Your task to perform on an android device: create a new album in the google photos Image 0: 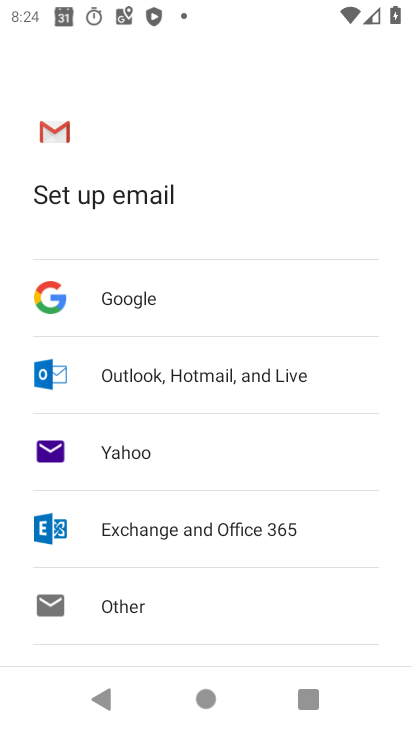
Step 0: press home button
Your task to perform on an android device: create a new album in the google photos Image 1: 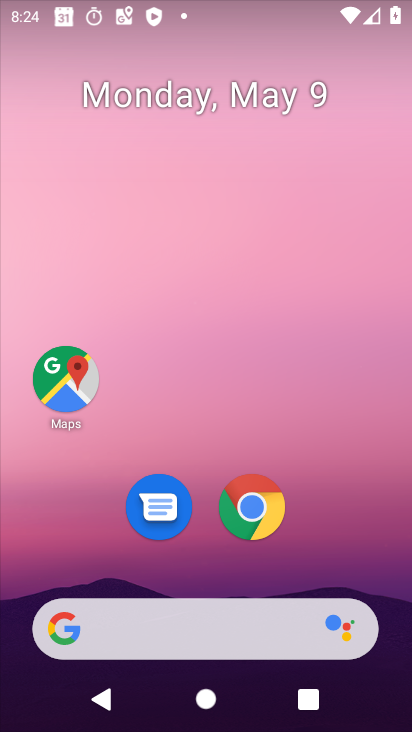
Step 1: drag from (247, 669) to (221, 149)
Your task to perform on an android device: create a new album in the google photos Image 2: 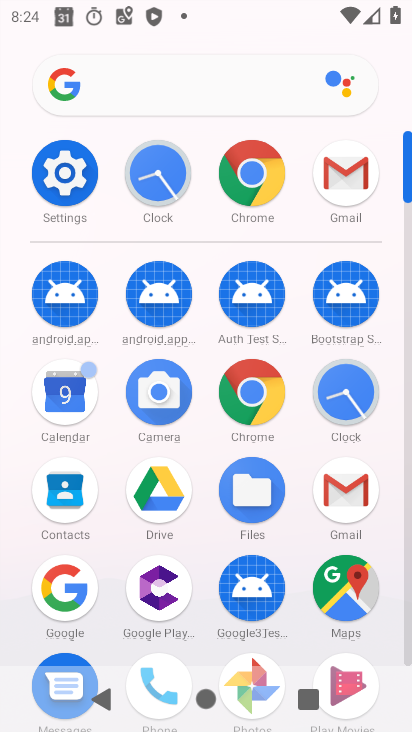
Step 2: click (257, 661)
Your task to perform on an android device: create a new album in the google photos Image 3: 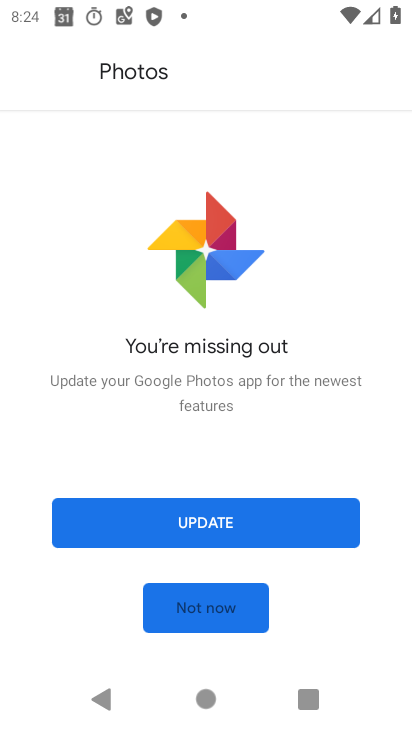
Step 3: click (265, 534)
Your task to perform on an android device: create a new album in the google photos Image 4: 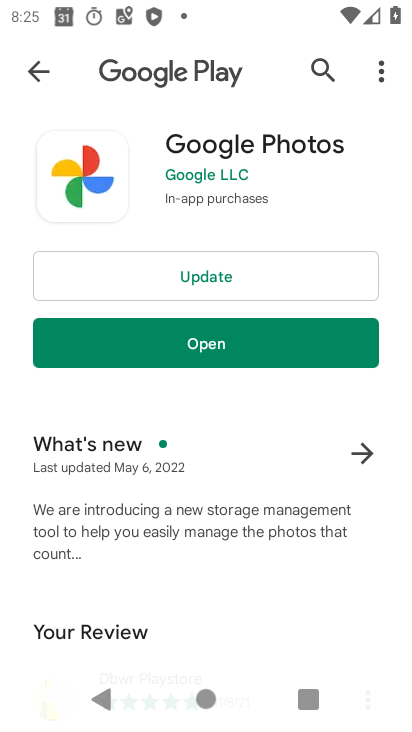
Step 4: click (212, 348)
Your task to perform on an android device: create a new album in the google photos Image 5: 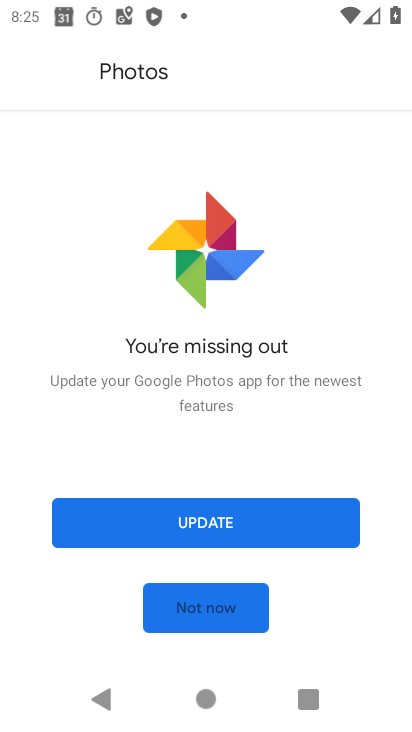
Step 5: click (212, 537)
Your task to perform on an android device: create a new album in the google photos Image 6: 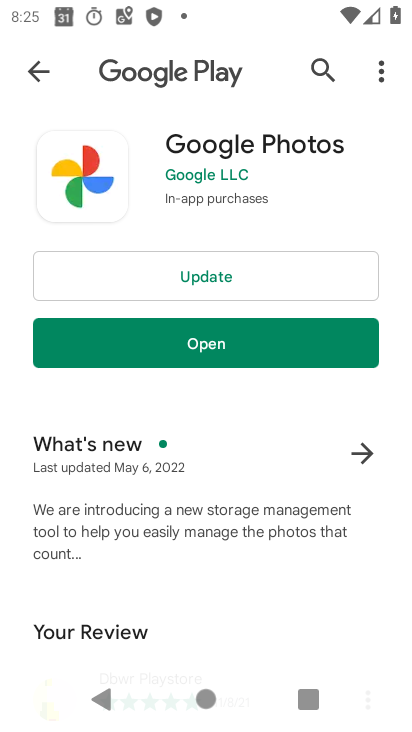
Step 6: click (228, 270)
Your task to perform on an android device: create a new album in the google photos Image 7: 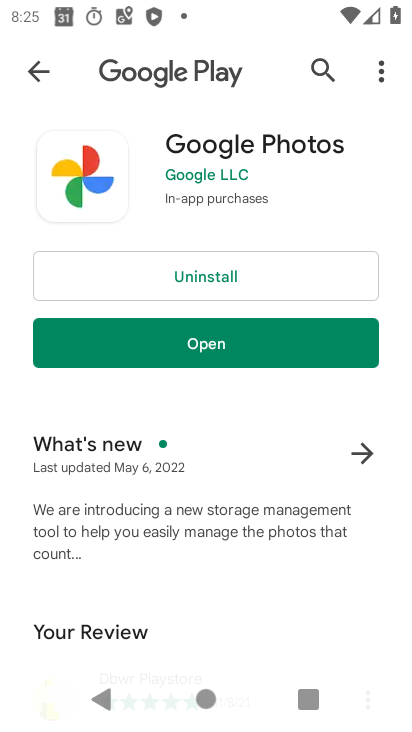
Step 7: click (200, 355)
Your task to perform on an android device: create a new album in the google photos Image 8: 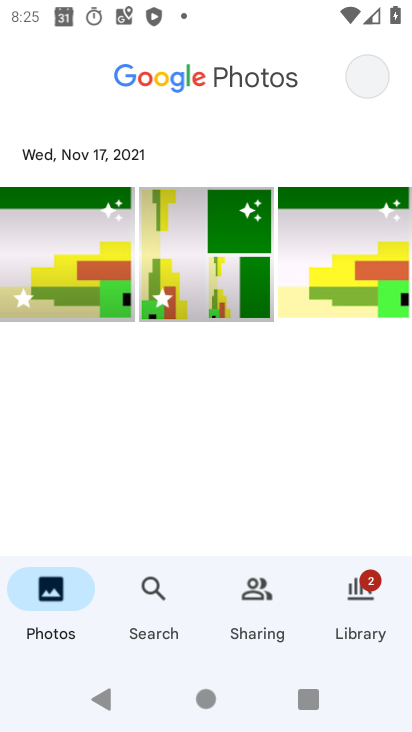
Step 8: click (234, 300)
Your task to perform on an android device: create a new album in the google photos Image 9: 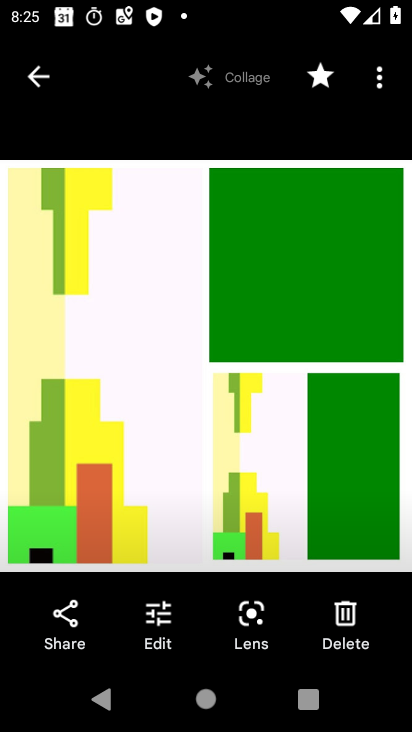
Step 9: click (368, 76)
Your task to perform on an android device: create a new album in the google photos Image 10: 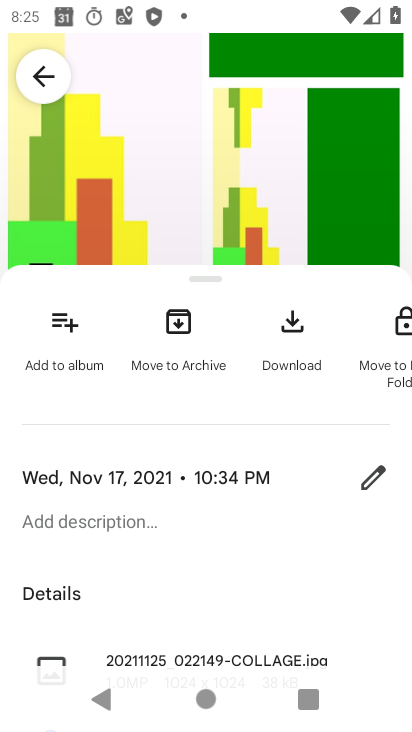
Step 10: drag from (281, 323) to (123, 424)
Your task to perform on an android device: create a new album in the google photos Image 11: 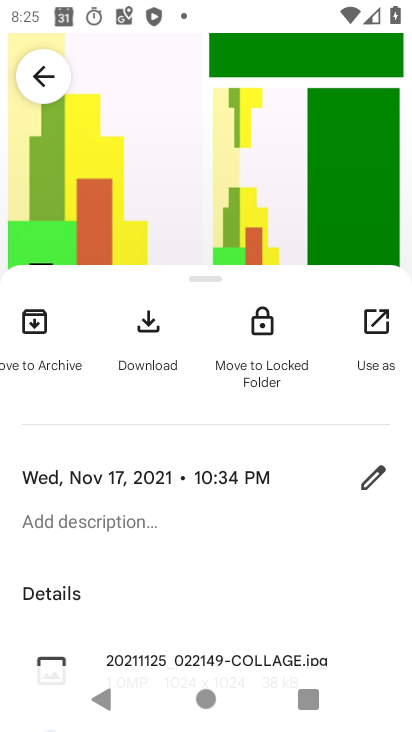
Step 11: click (385, 477)
Your task to perform on an android device: create a new album in the google photos Image 12: 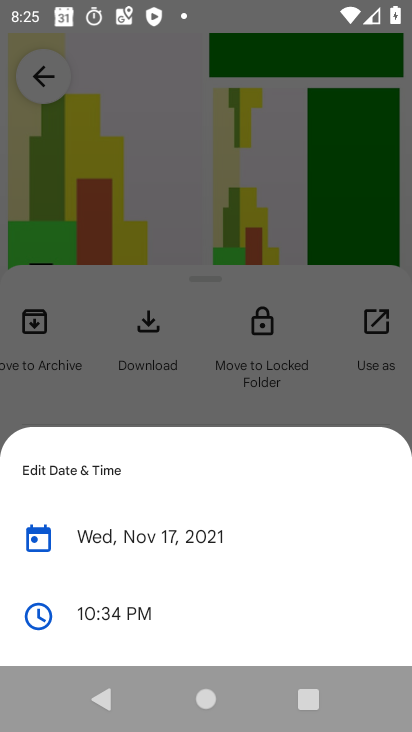
Step 12: click (186, 401)
Your task to perform on an android device: create a new album in the google photos Image 13: 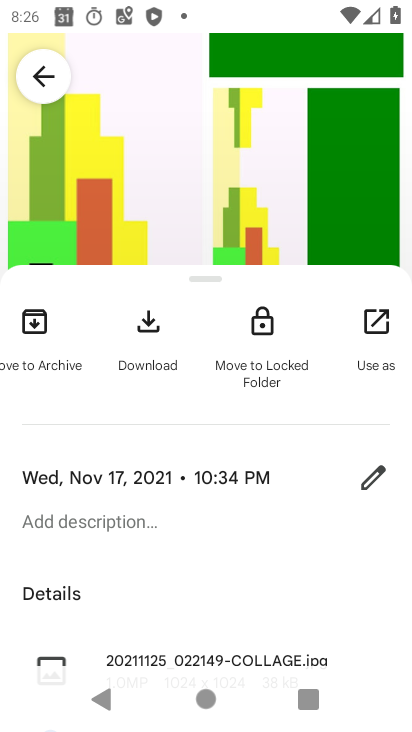
Step 13: drag from (67, 349) to (362, 300)
Your task to perform on an android device: create a new album in the google photos Image 14: 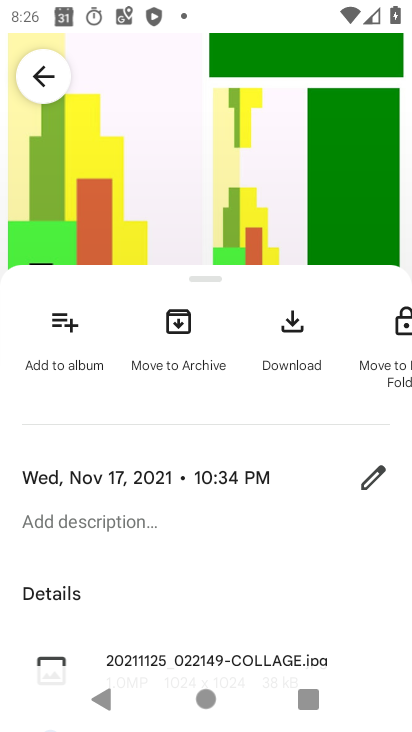
Step 14: click (79, 329)
Your task to perform on an android device: create a new album in the google photos Image 15: 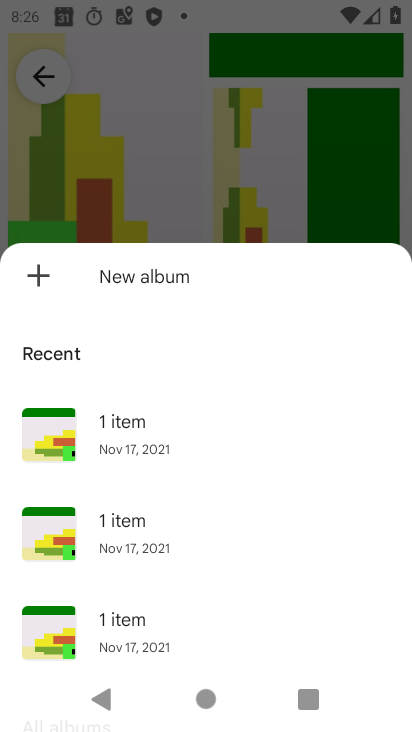
Step 15: click (141, 290)
Your task to perform on an android device: create a new album in the google photos Image 16: 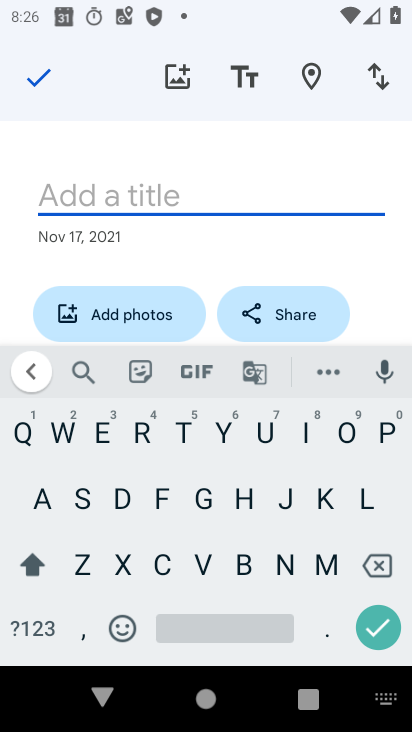
Step 16: click (207, 499)
Your task to perform on an android device: create a new album in the google photos Image 17: 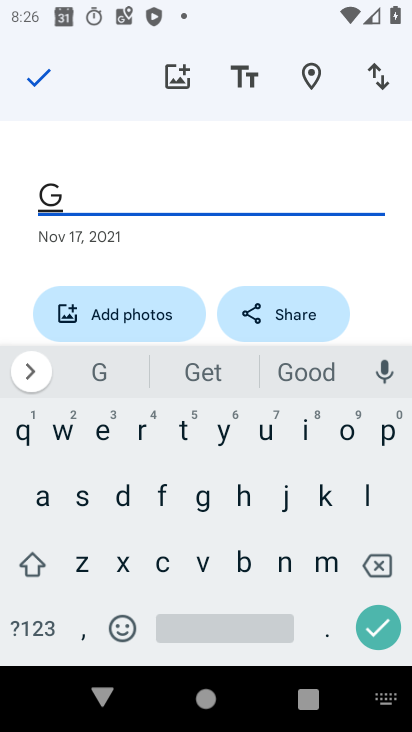
Step 17: click (163, 499)
Your task to perform on an android device: create a new album in the google photos Image 18: 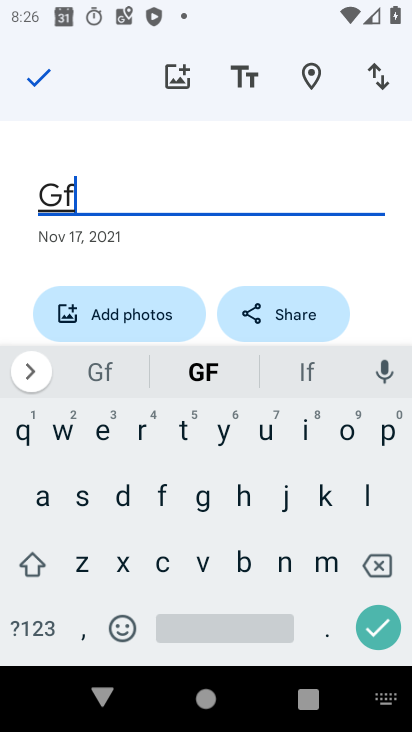
Step 18: click (200, 366)
Your task to perform on an android device: create a new album in the google photos Image 19: 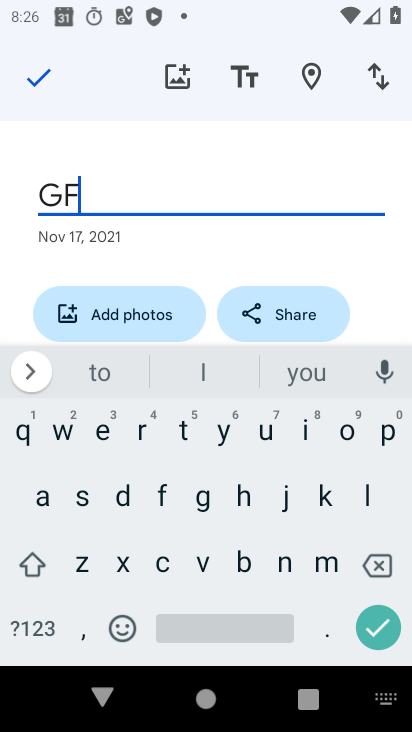
Step 19: click (36, 70)
Your task to perform on an android device: create a new album in the google photos Image 20: 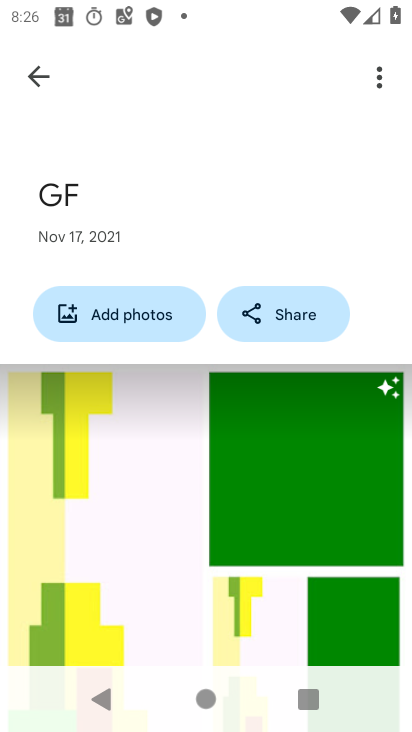
Step 20: task complete